Your task to perform on an android device: When is my next appointment? Image 0: 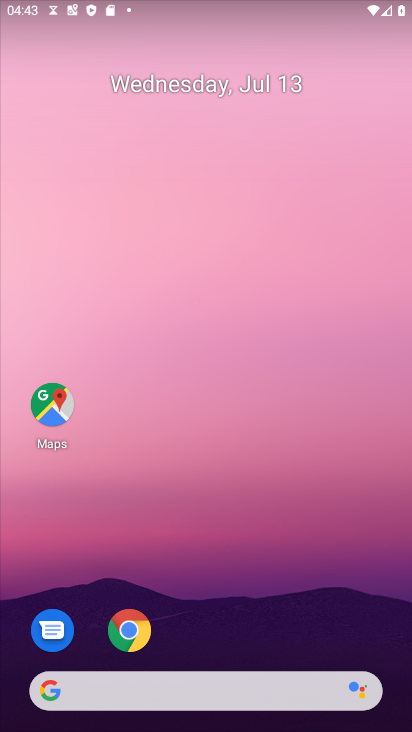
Step 0: drag from (195, 688) to (225, 11)
Your task to perform on an android device: When is my next appointment? Image 1: 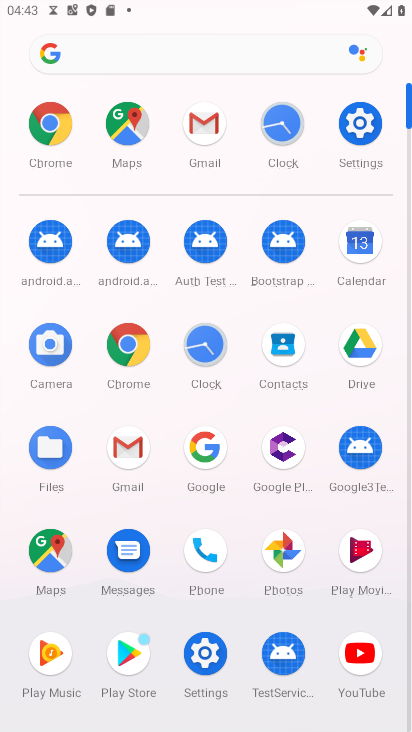
Step 1: click (360, 247)
Your task to perform on an android device: When is my next appointment? Image 2: 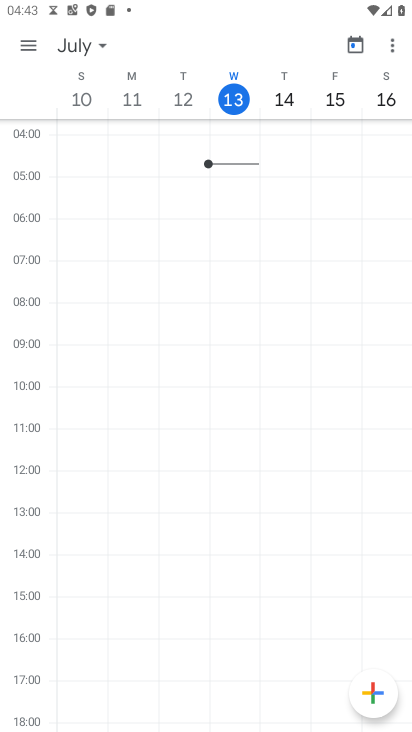
Step 2: click (104, 42)
Your task to perform on an android device: When is my next appointment? Image 3: 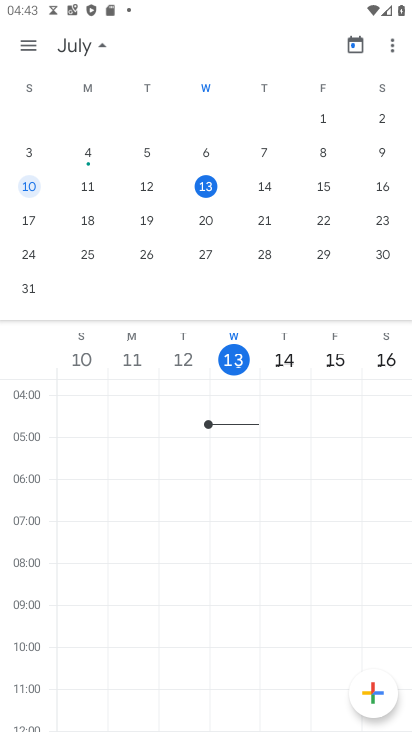
Step 3: click (269, 184)
Your task to perform on an android device: When is my next appointment? Image 4: 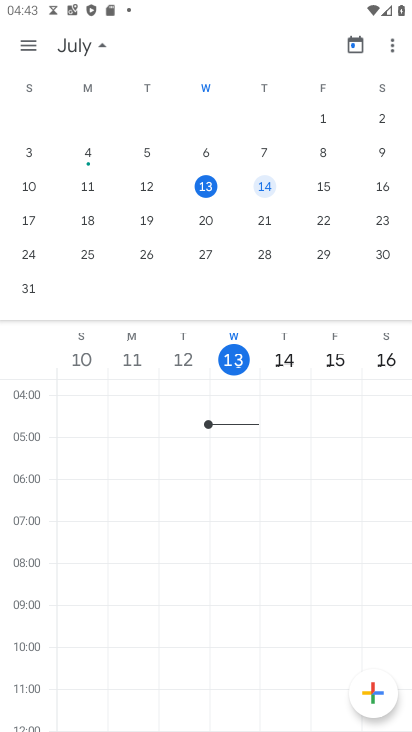
Step 4: task complete